Your task to perform on an android device: uninstall "Facebook Messenger" Image 0: 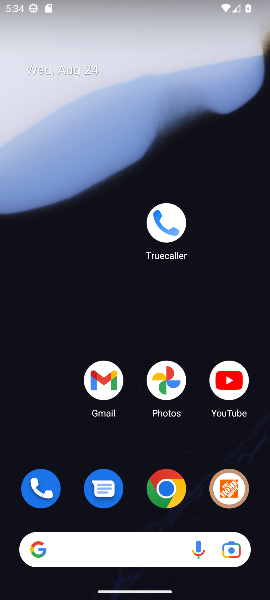
Step 0: drag from (127, 511) to (108, 128)
Your task to perform on an android device: uninstall "Facebook Messenger" Image 1: 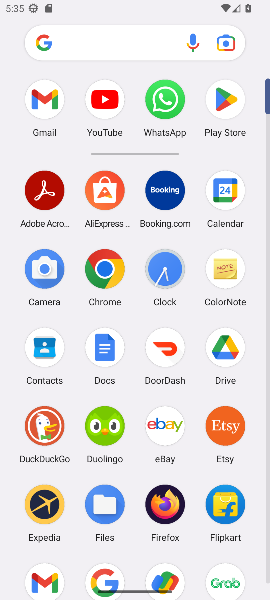
Step 1: click (233, 105)
Your task to perform on an android device: uninstall "Facebook Messenger" Image 2: 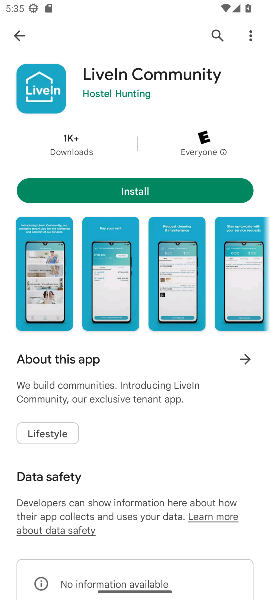
Step 2: click (158, 183)
Your task to perform on an android device: uninstall "Facebook Messenger" Image 3: 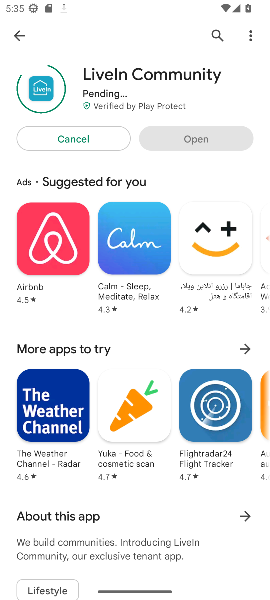
Step 3: click (212, 27)
Your task to perform on an android device: uninstall "Facebook Messenger" Image 4: 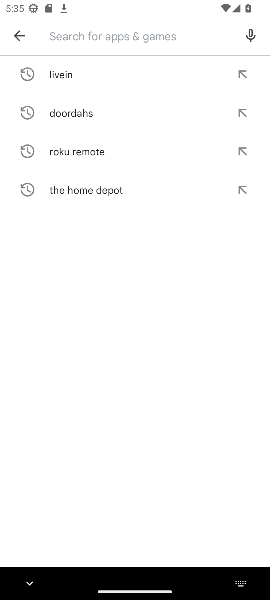
Step 4: type "facebook"
Your task to perform on an android device: uninstall "Facebook Messenger" Image 5: 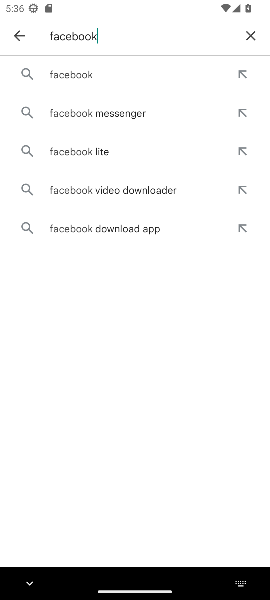
Step 5: click (67, 108)
Your task to perform on an android device: uninstall "Facebook Messenger" Image 6: 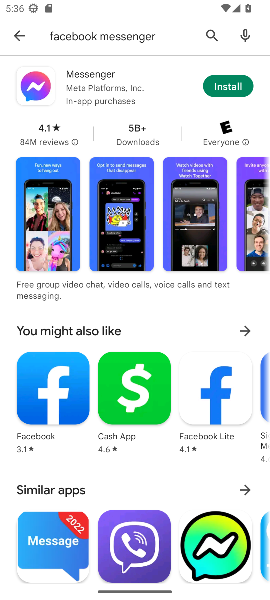
Step 6: click (223, 88)
Your task to perform on an android device: uninstall "Facebook Messenger" Image 7: 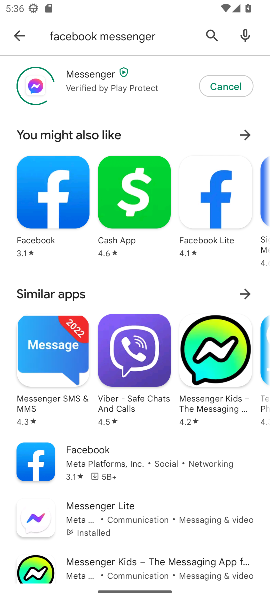
Step 7: task complete